Your task to perform on an android device: check battery use Image 0: 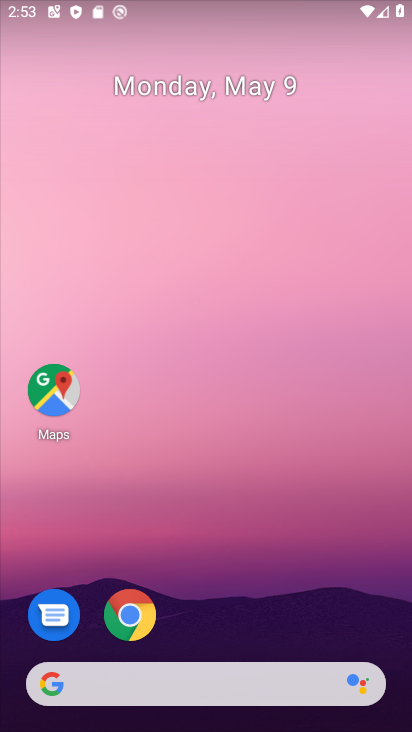
Step 0: click (296, 258)
Your task to perform on an android device: check battery use Image 1: 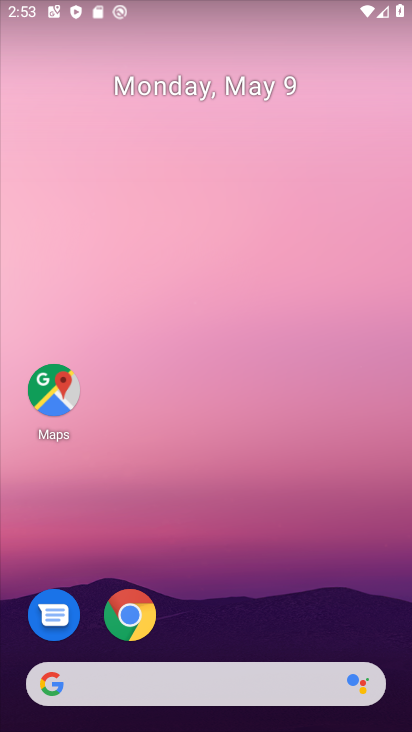
Step 1: drag from (277, 322) to (279, 267)
Your task to perform on an android device: check battery use Image 2: 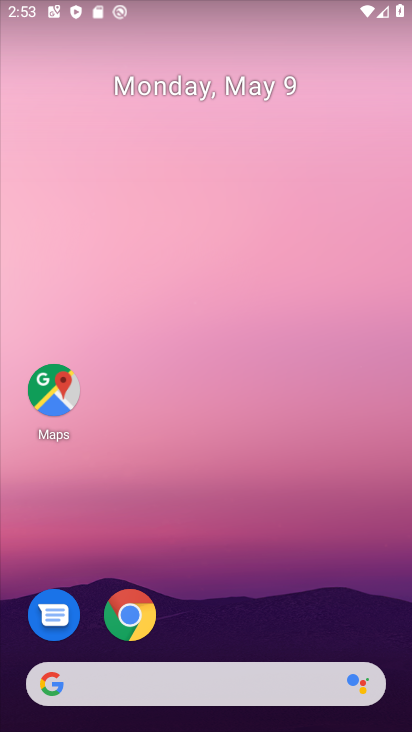
Step 2: drag from (294, 523) to (352, 175)
Your task to perform on an android device: check battery use Image 3: 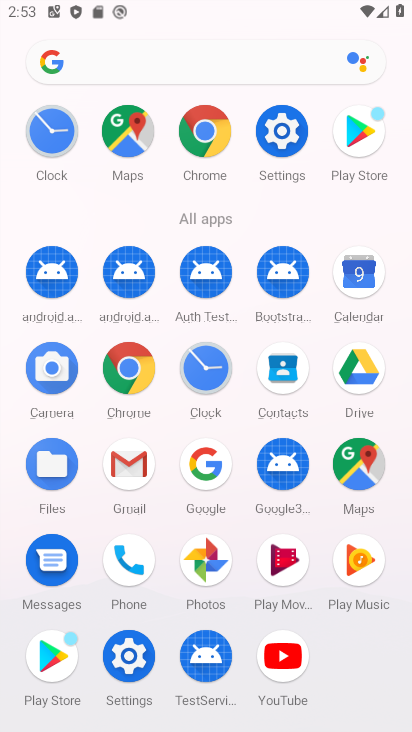
Step 3: click (276, 134)
Your task to perform on an android device: check battery use Image 4: 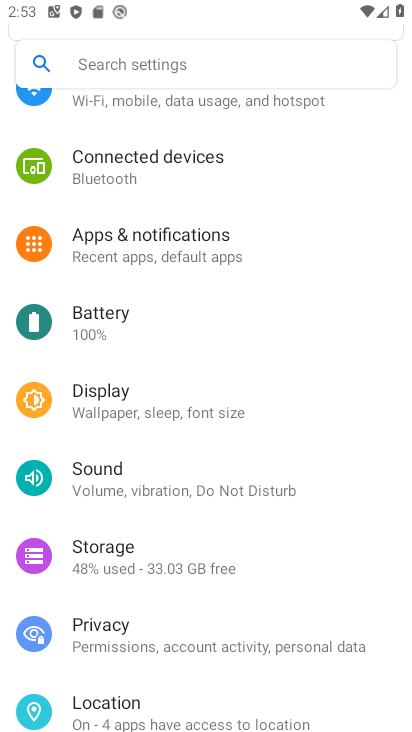
Step 4: click (136, 307)
Your task to perform on an android device: check battery use Image 5: 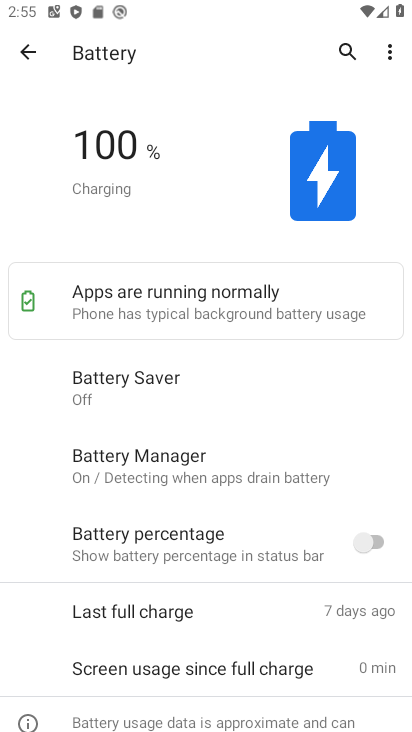
Step 5: task complete